Your task to perform on an android device: Go to ESPN.com Image 0: 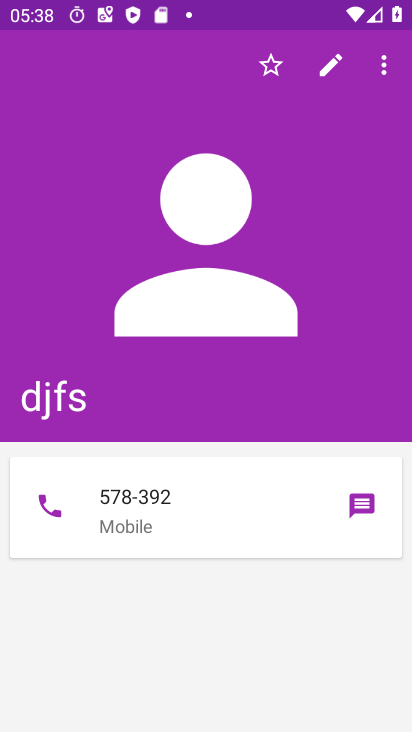
Step 0: drag from (292, 672) to (304, 109)
Your task to perform on an android device: Go to ESPN.com Image 1: 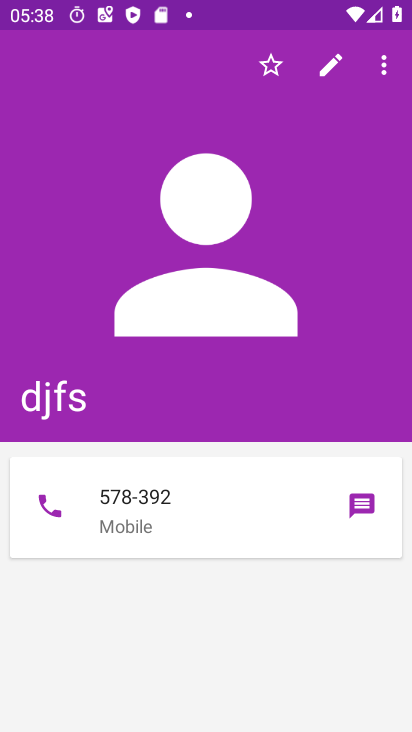
Step 1: press home button
Your task to perform on an android device: Go to ESPN.com Image 2: 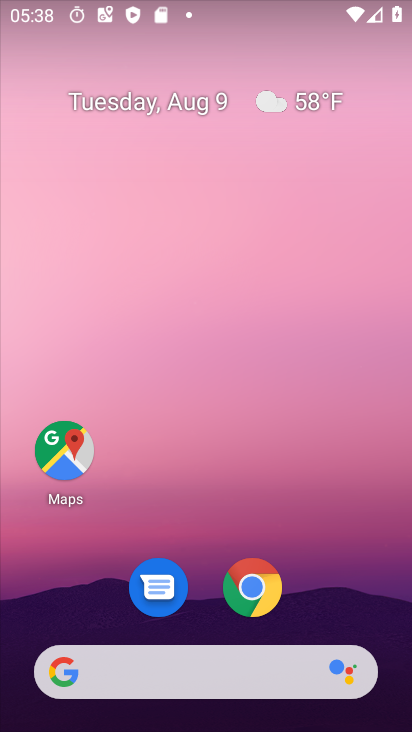
Step 2: click (263, 591)
Your task to perform on an android device: Go to ESPN.com Image 3: 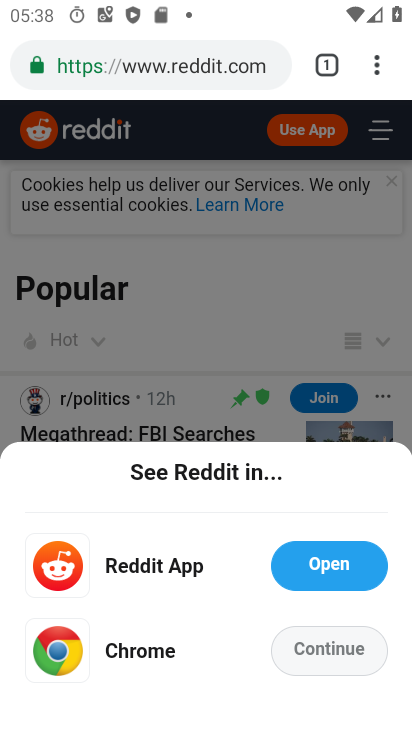
Step 3: click (187, 75)
Your task to perform on an android device: Go to ESPN.com Image 4: 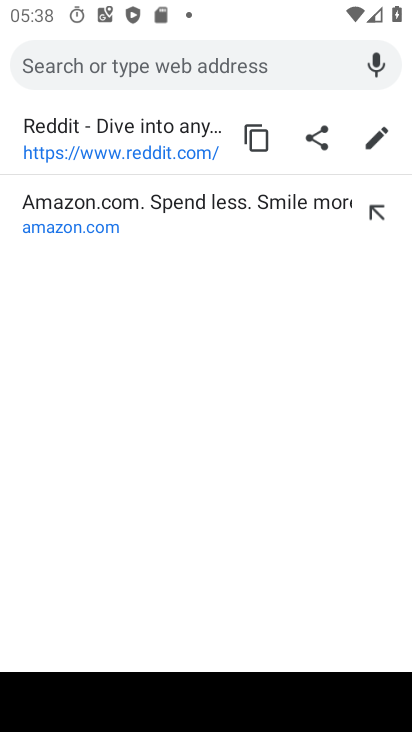
Step 4: type ""
Your task to perform on an android device: Go to ESPN.com Image 5: 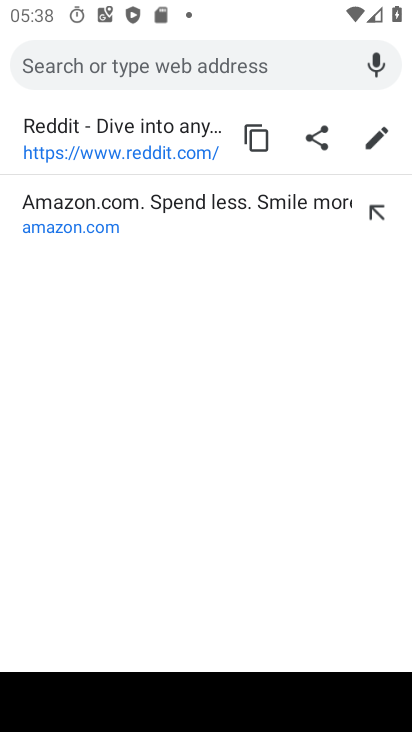
Step 5: type "espn.com"
Your task to perform on an android device: Go to ESPN.com Image 6: 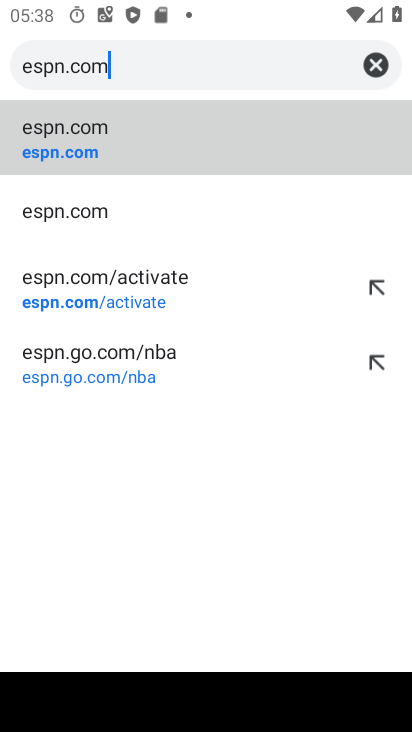
Step 6: click (256, 138)
Your task to perform on an android device: Go to ESPN.com Image 7: 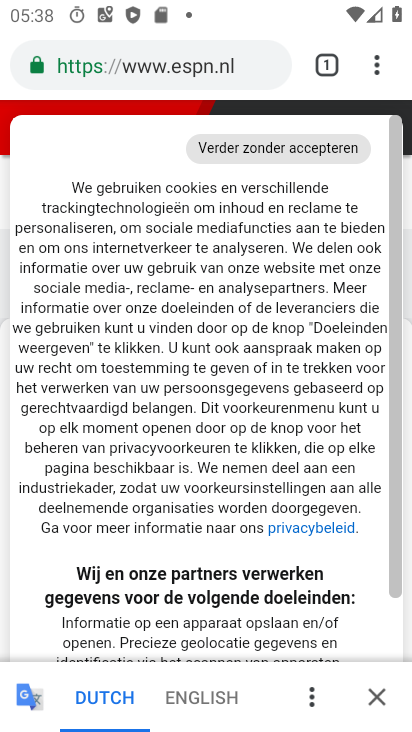
Step 7: task complete